Your task to perform on an android device: Search for "energizer triple a" on bestbuy, select the first entry, add it to the cart, then select checkout. Image 0: 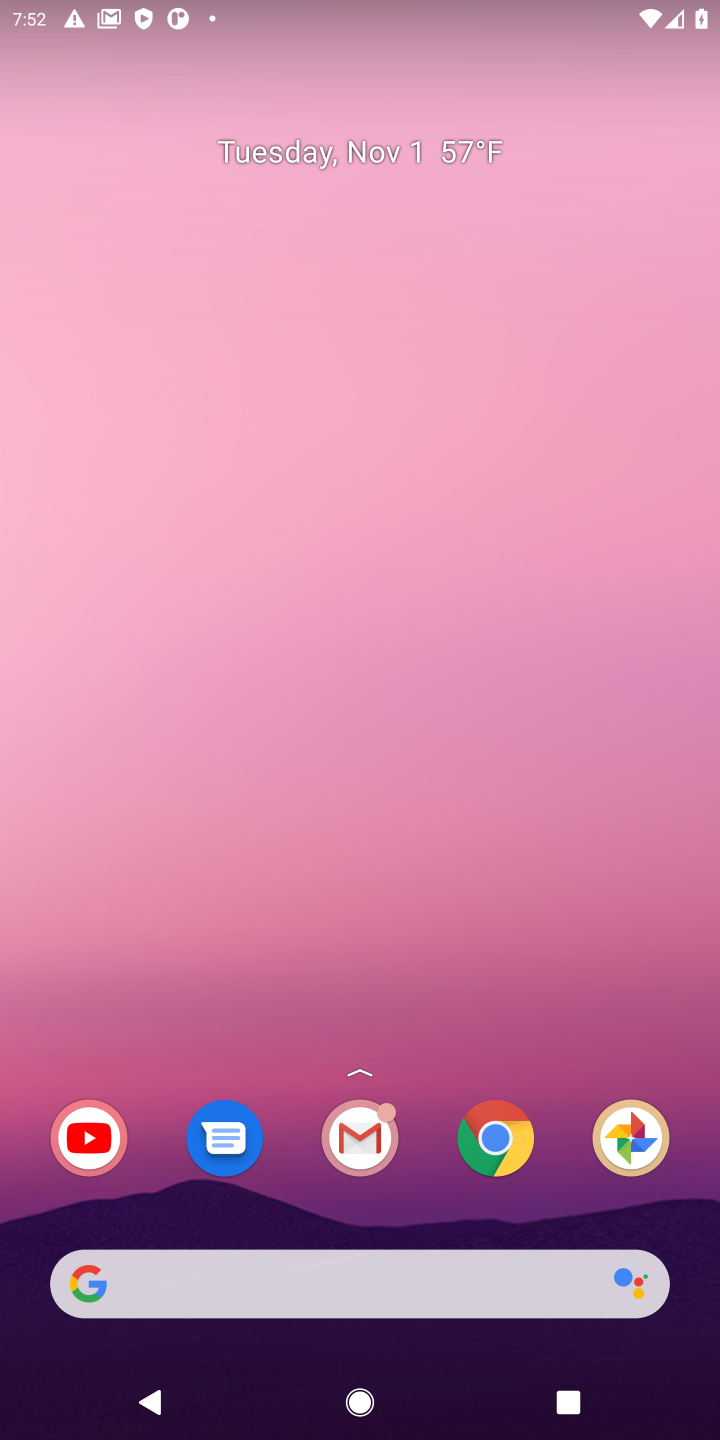
Step 0: click (493, 1298)
Your task to perform on an android device: Search for "energizer triple a" on bestbuy, select the first entry, add it to the cart, then select checkout. Image 1: 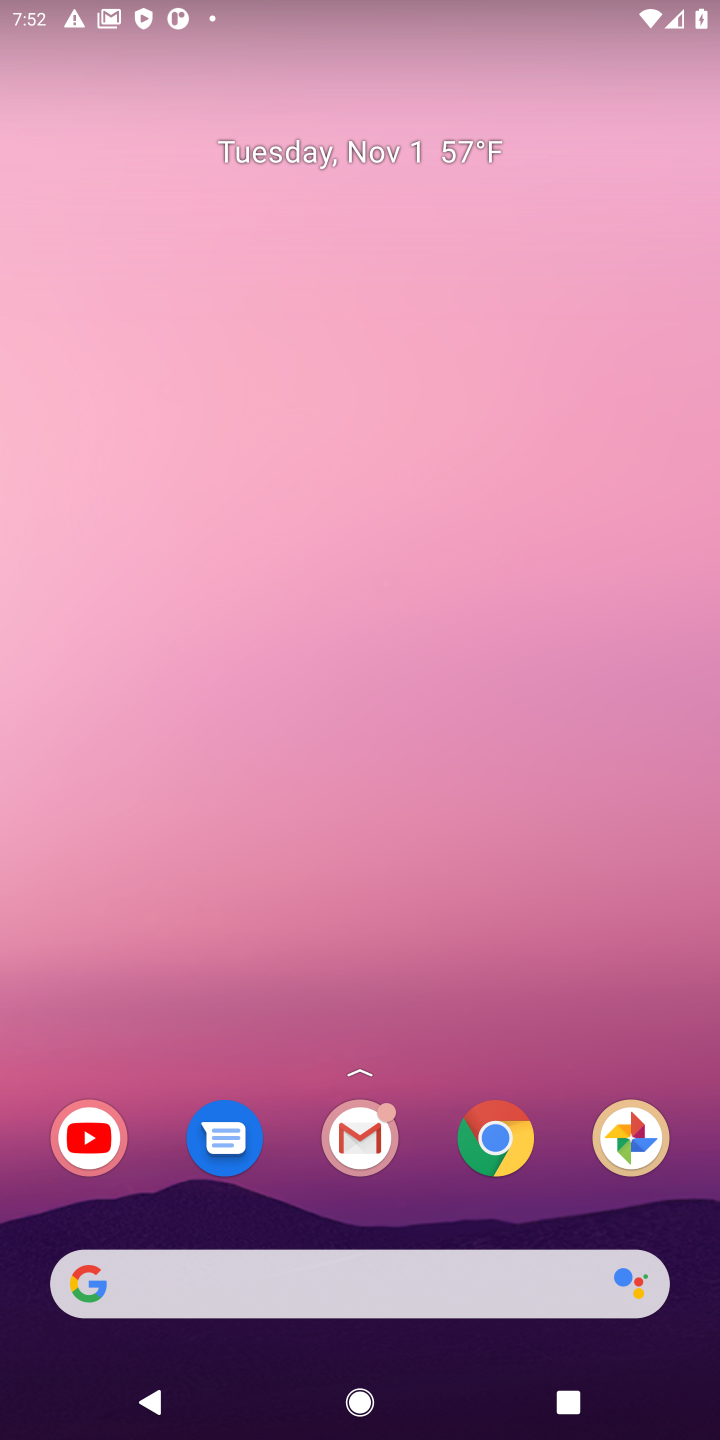
Step 1: click (493, 1147)
Your task to perform on an android device: Search for "energizer triple a" on bestbuy, select the first entry, add it to the cart, then select checkout. Image 2: 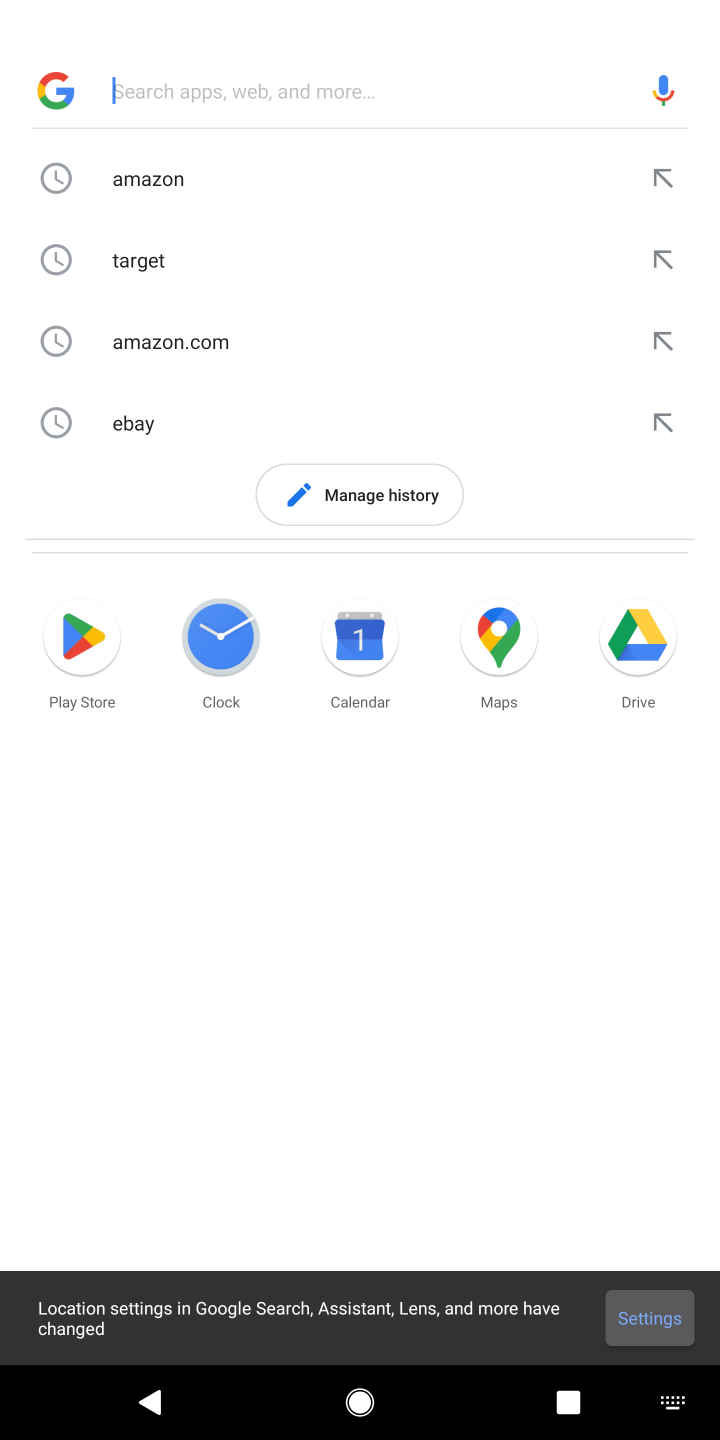
Step 2: click (187, 96)
Your task to perform on an android device: Search for "energizer triple a" on bestbuy, select the first entry, add it to the cart, then select checkout. Image 3: 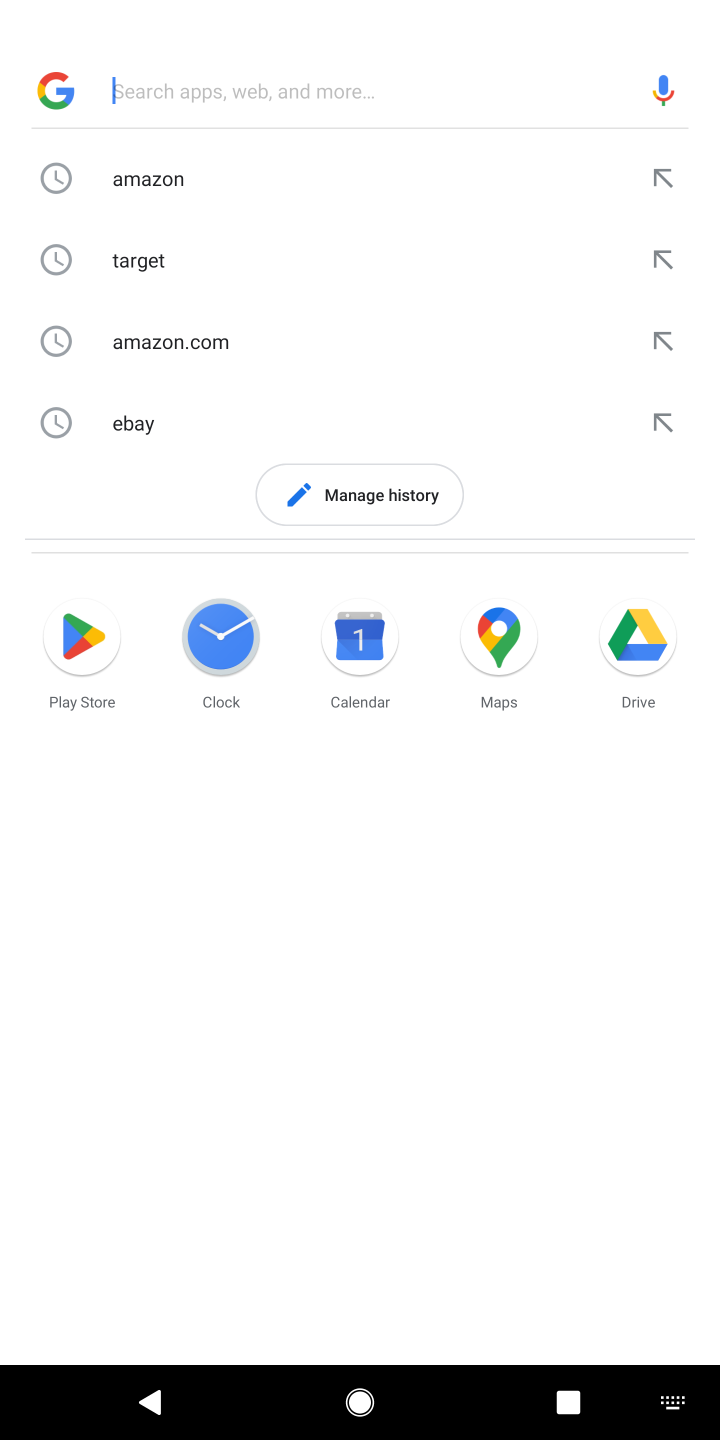
Step 3: type "bestbuy.com"
Your task to perform on an android device: Search for "energizer triple a" on bestbuy, select the first entry, add it to the cart, then select checkout. Image 4: 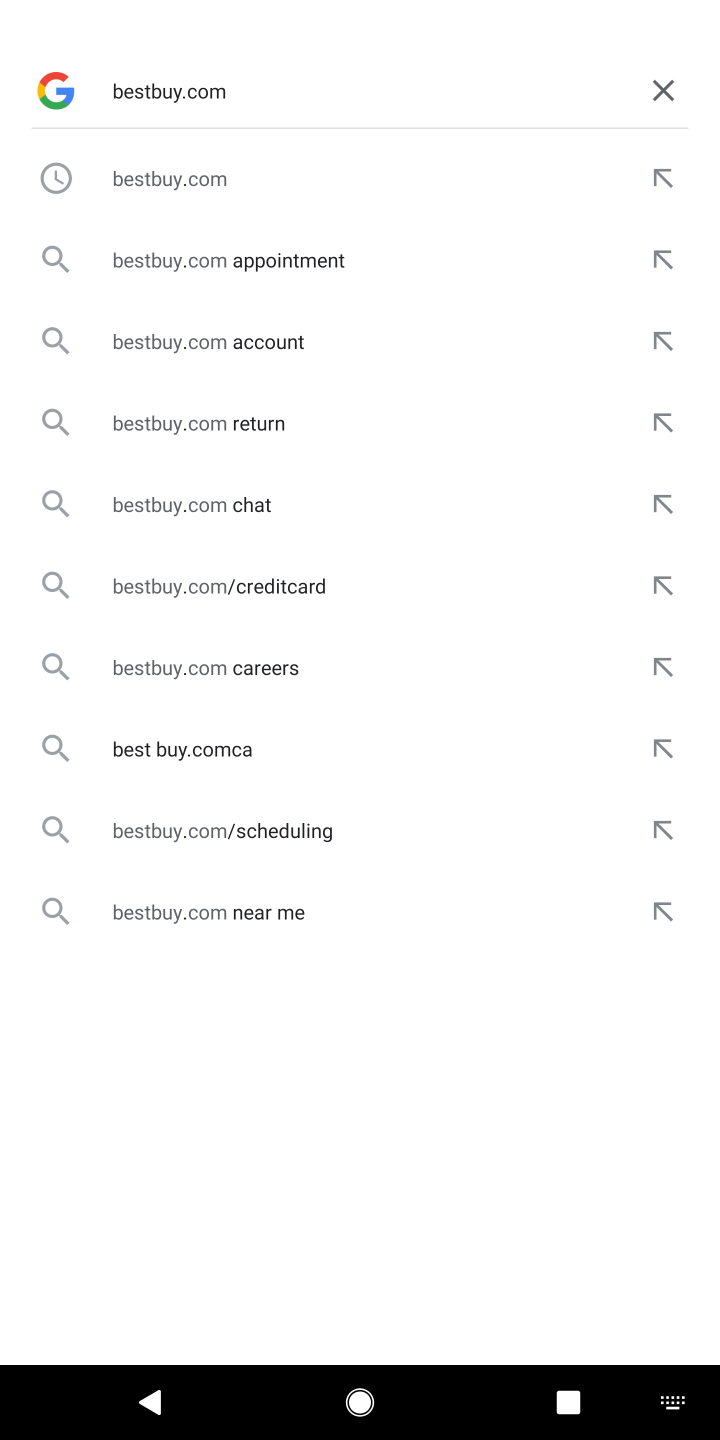
Step 4: click (155, 196)
Your task to perform on an android device: Search for "energizer triple a" on bestbuy, select the first entry, add it to the cart, then select checkout. Image 5: 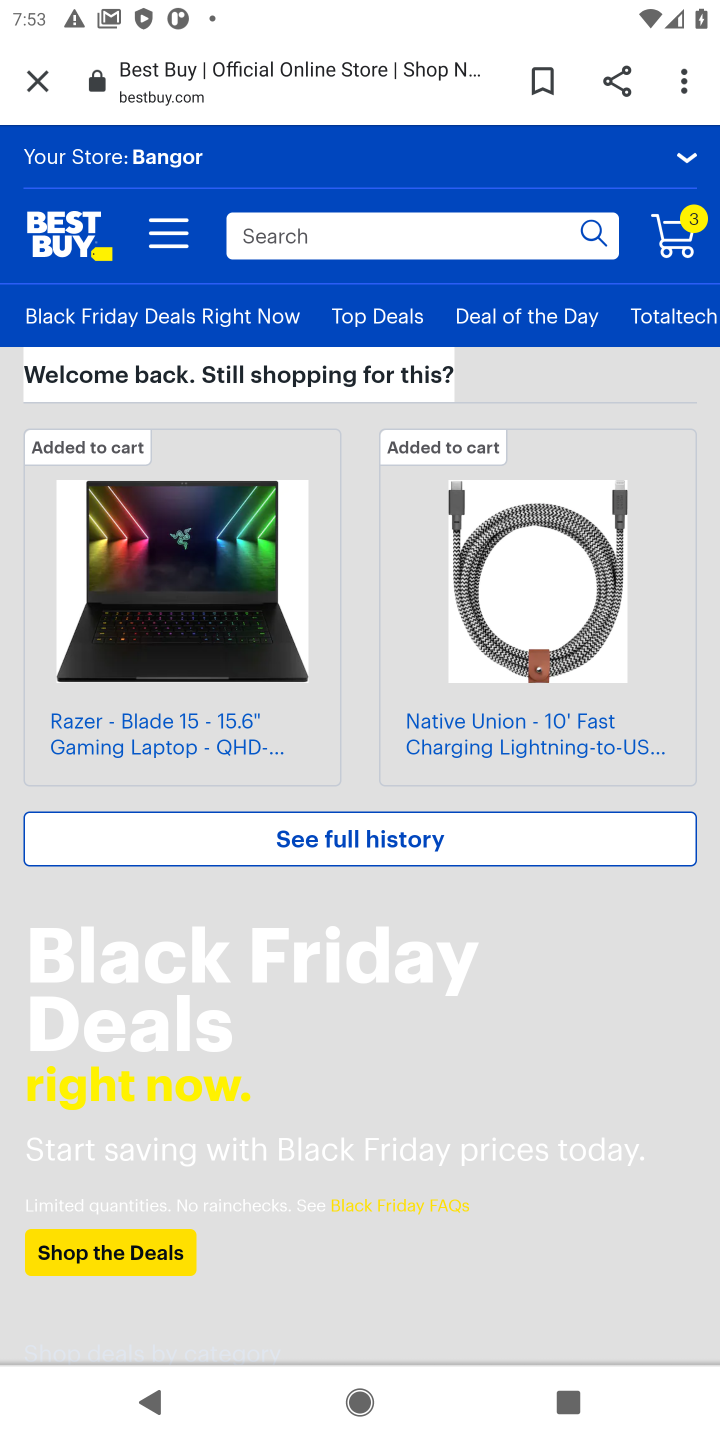
Step 5: click (342, 252)
Your task to perform on an android device: Search for "energizer triple a" on bestbuy, select the first entry, add it to the cart, then select checkout. Image 6: 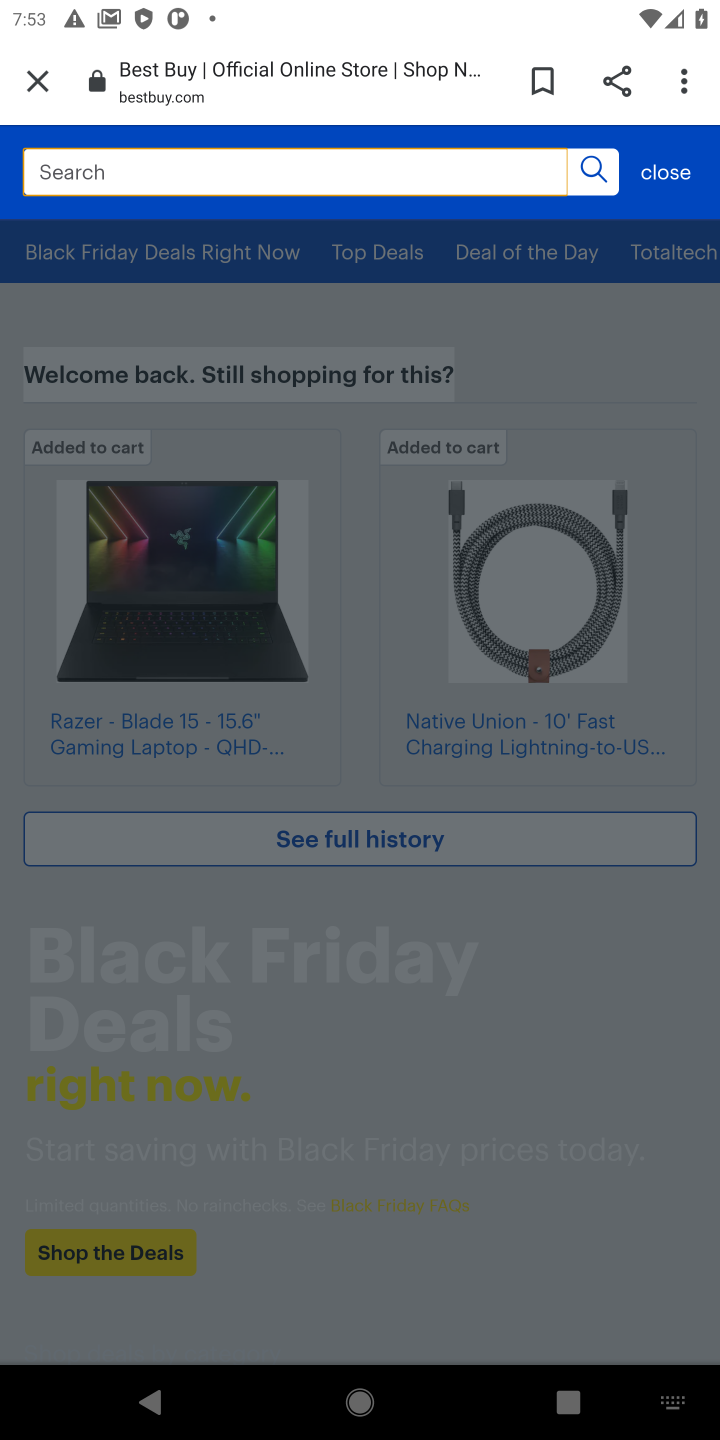
Step 6: type "energizer triple a"
Your task to perform on an android device: Search for "energizer triple a" on bestbuy, select the first entry, add it to the cart, then select checkout. Image 7: 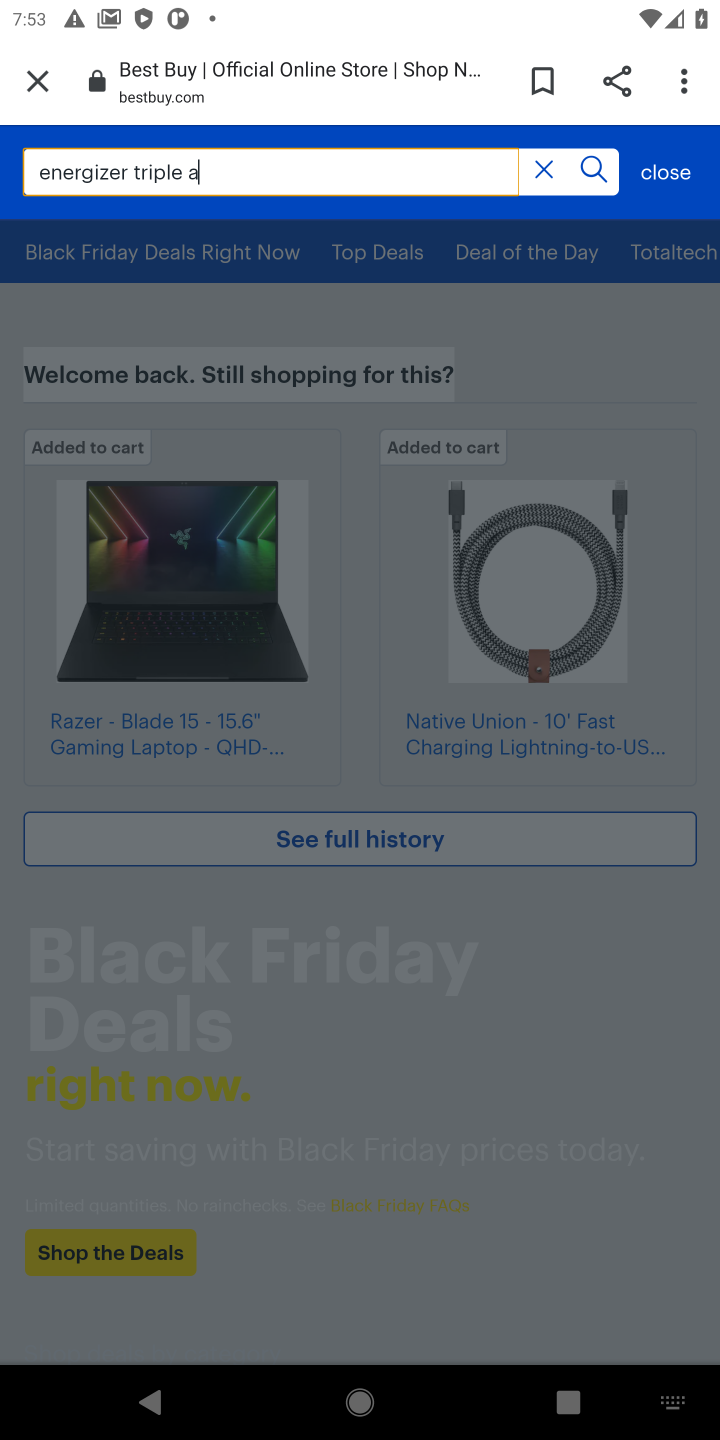
Step 7: click (601, 165)
Your task to perform on an android device: Search for "energizer triple a" on bestbuy, select the first entry, add it to the cart, then select checkout. Image 8: 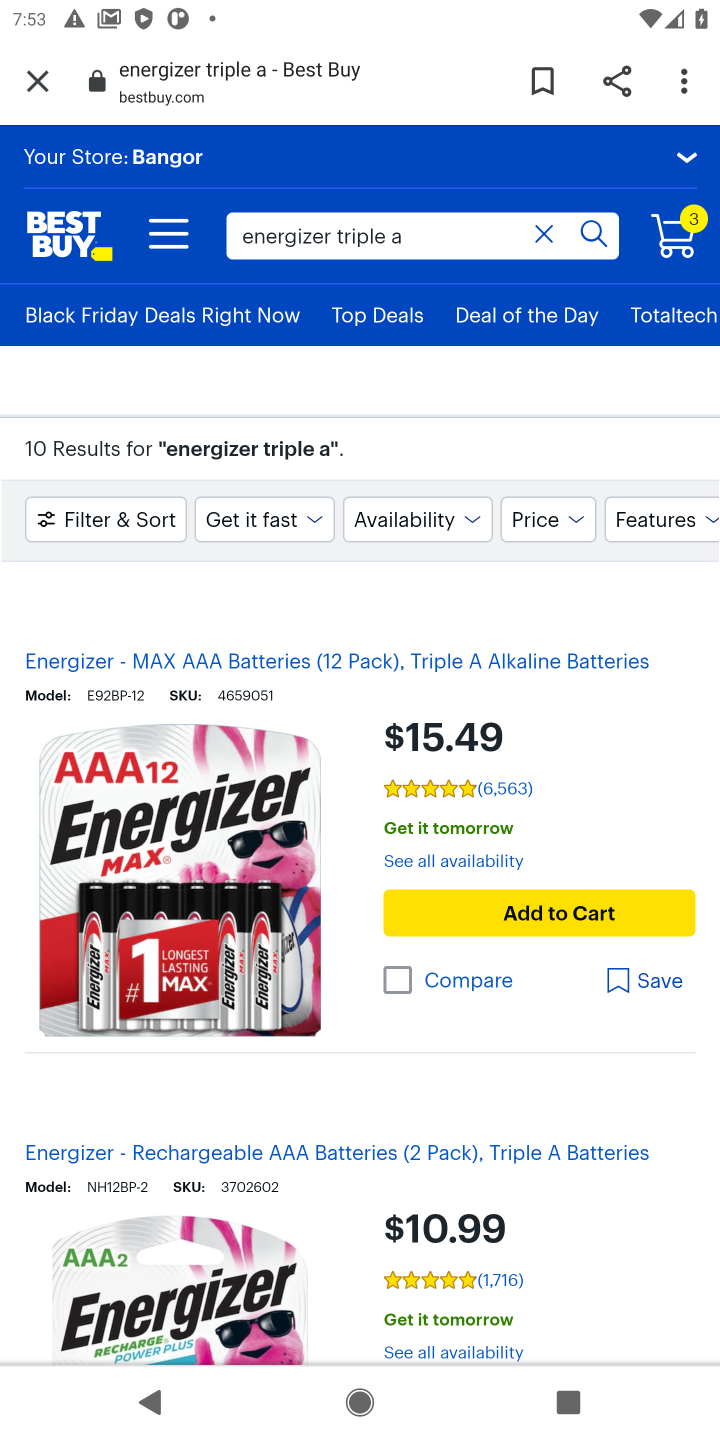
Step 8: click (228, 928)
Your task to perform on an android device: Search for "energizer triple a" on bestbuy, select the first entry, add it to the cart, then select checkout. Image 9: 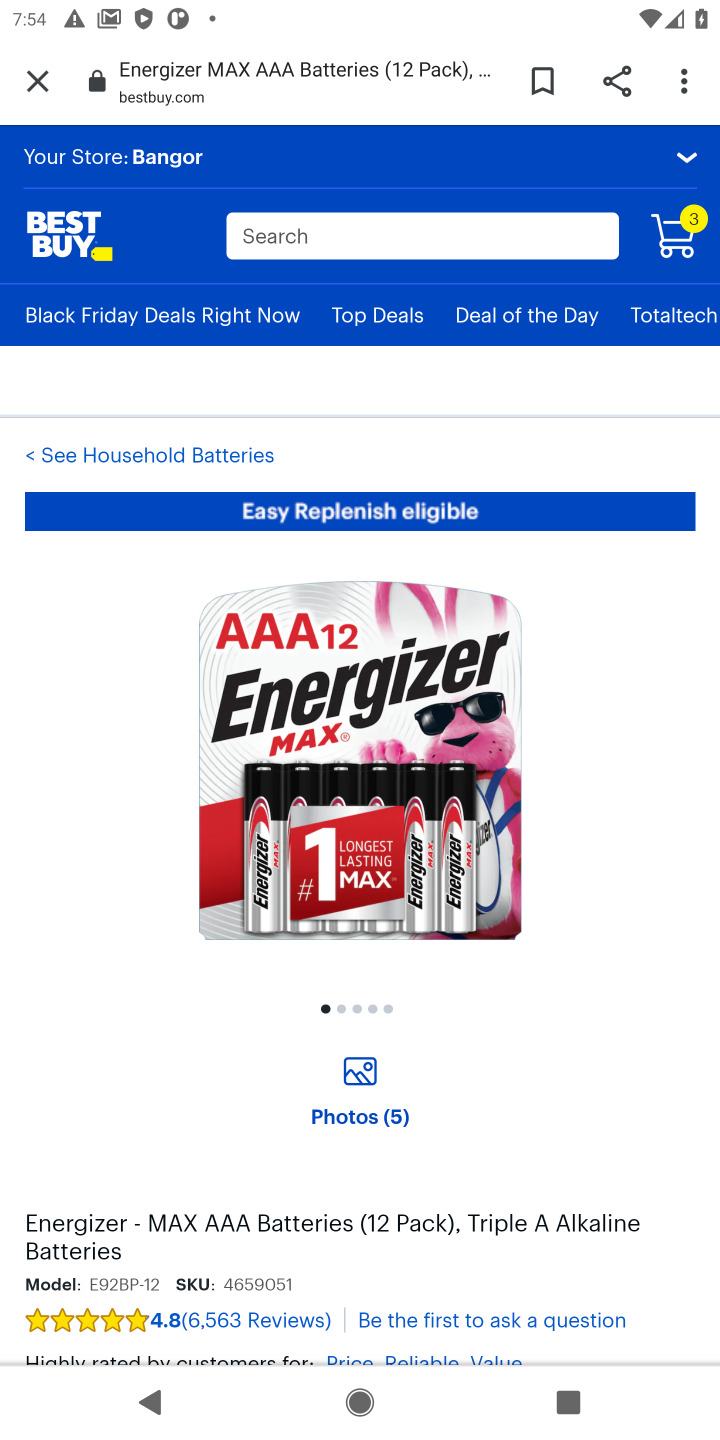
Step 9: drag from (484, 1070) to (498, 484)
Your task to perform on an android device: Search for "energizer triple a" on bestbuy, select the first entry, add it to the cart, then select checkout. Image 10: 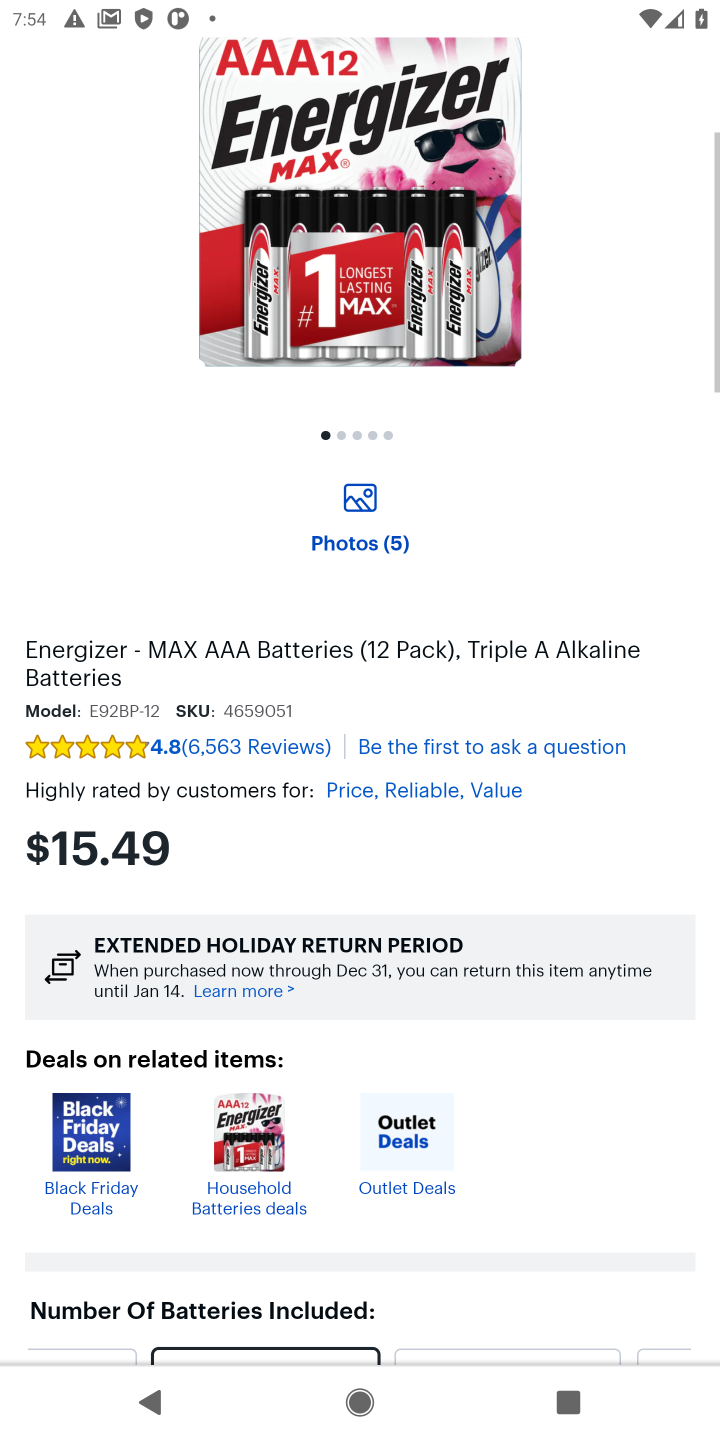
Step 10: drag from (460, 910) to (482, 467)
Your task to perform on an android device: Search for "energizer triple a" on bestbuy, select the first entry, add it to the cart, then select checkout. Image 11: 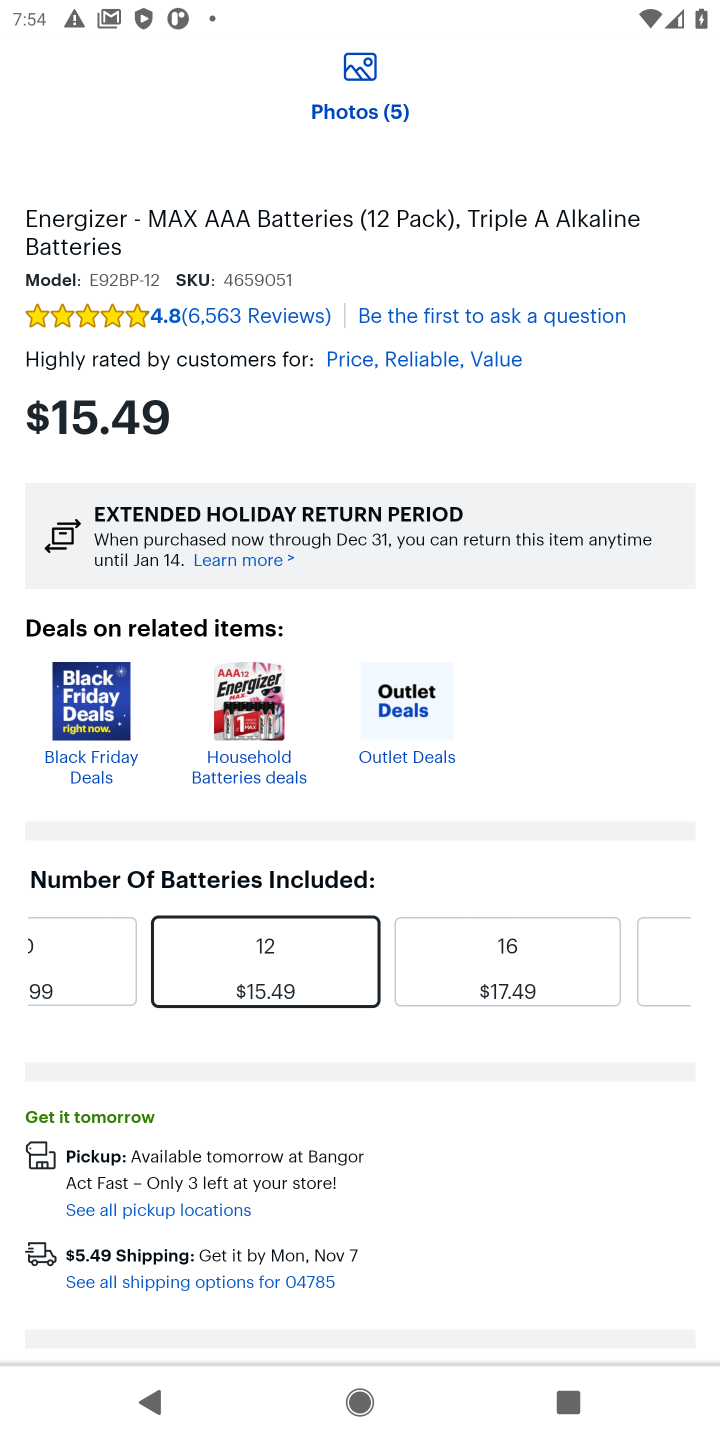
Step 11: drag from (423, 1116) to (455, 539)
Your task to perform on an android device: Search for "energizer triple a" on bestbuy, select the first entry, add it to the cart, then select checkout. Image 12: 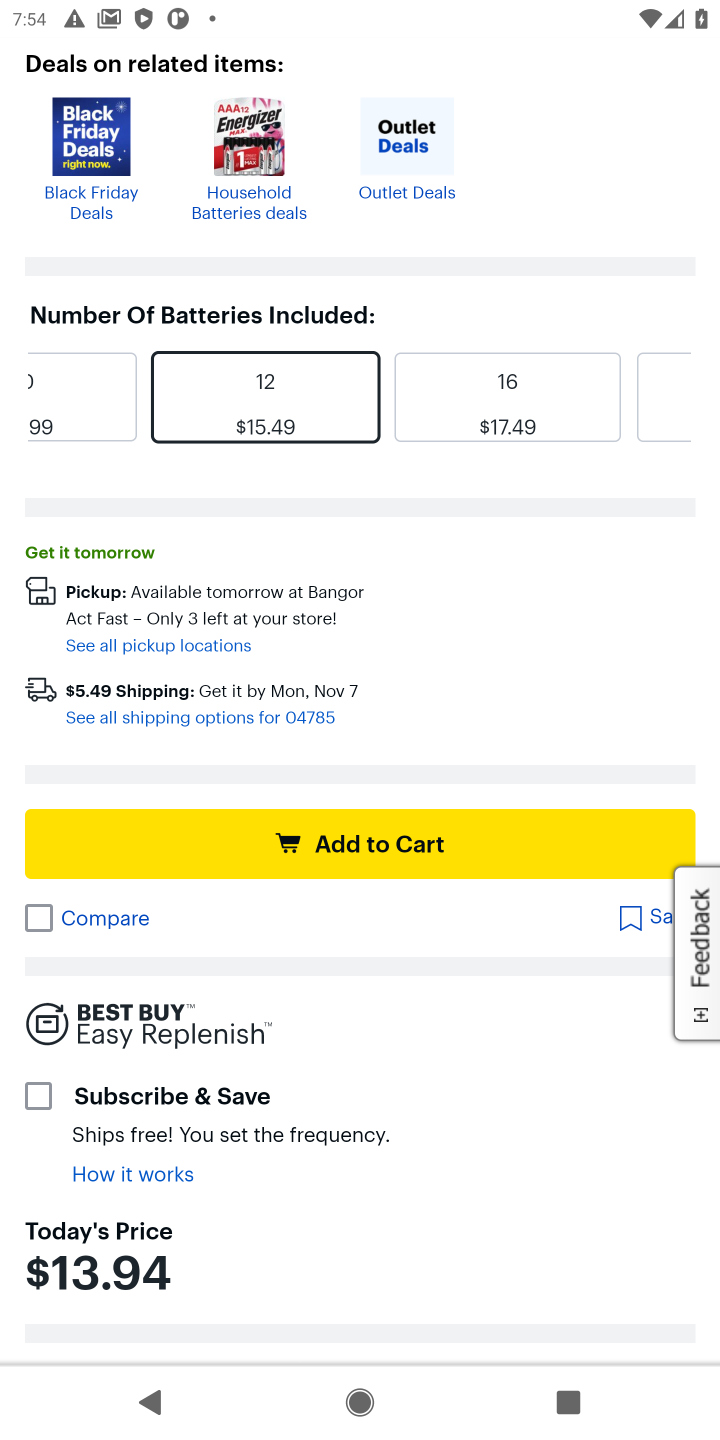
Step 12: click (368, 844)
Your task to perform on an android device: Search for "energizer triple a" on bestbuy, select the first entry, add it to the cart, then select checkout. Image 13: 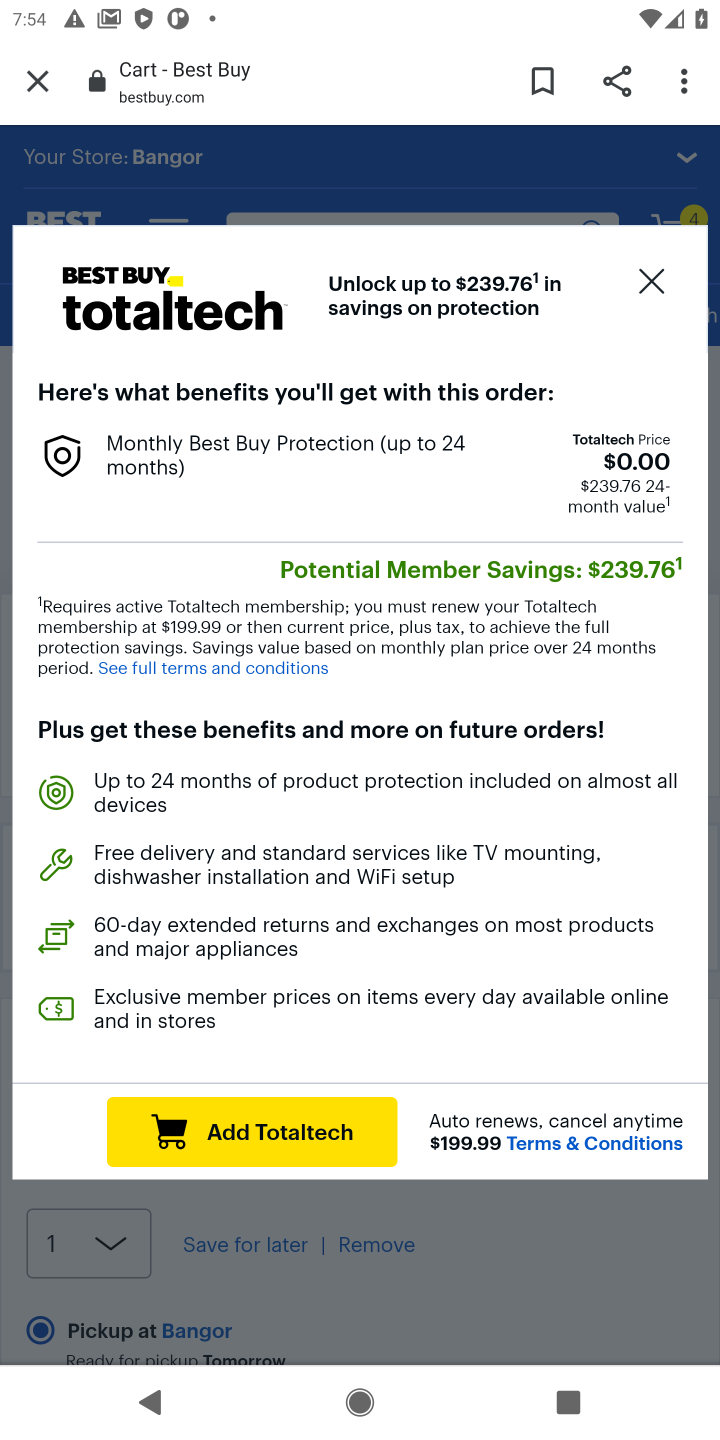
Step 13: click (651, 279)
Your task to perform on an android device: Search for "energizer triple a" on bestbuy, select the first entry, add it to the cart, then select checkout. Image 14: 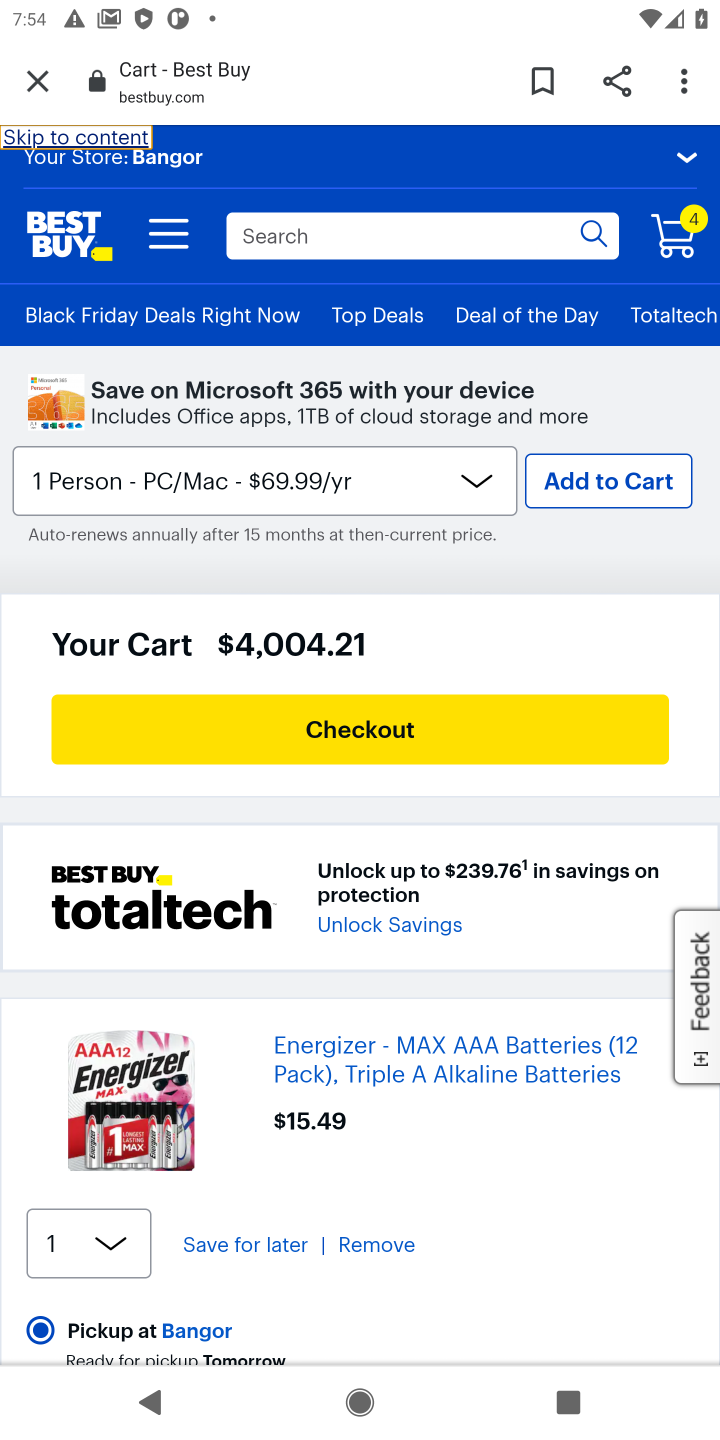
Step 14: click (331, 750)
Your task to perform on an android device: Search for "energizer triple a" on bestbuy, select the first entry, add it to the cart, then select checkout. Image 15: 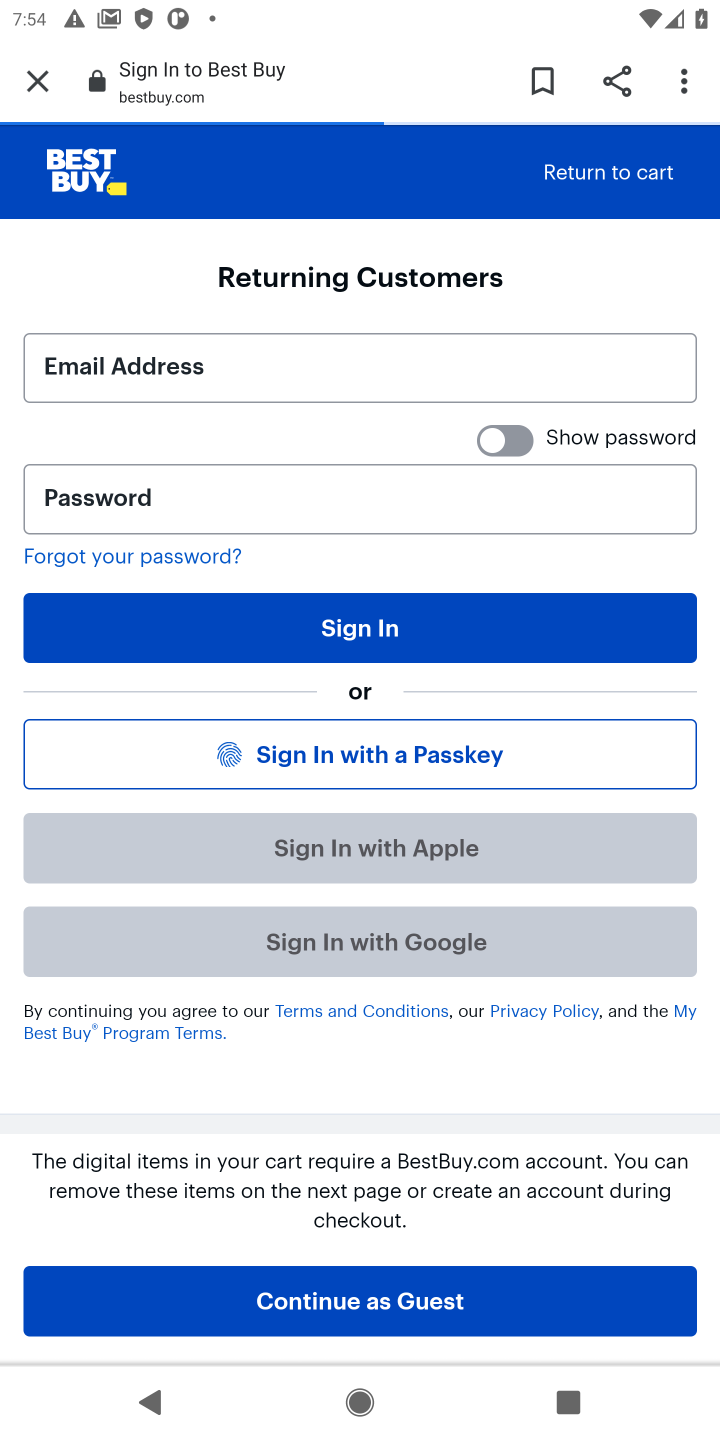
Step 15: task complete